Your task to perform on an android device: turn off notifications in google photos Image 0: 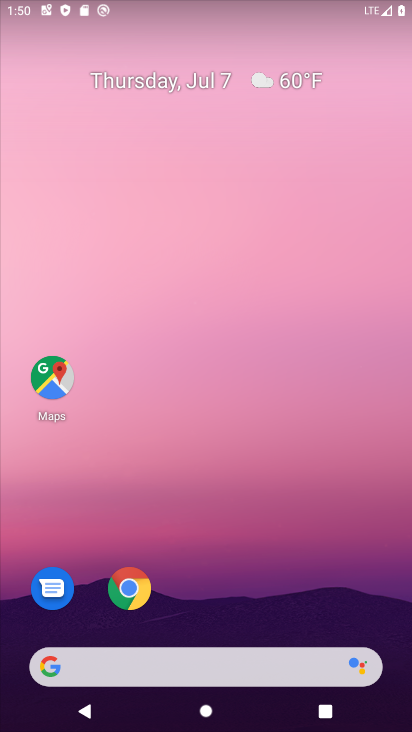
Step 0: drag from (233, 558) to (243, 186)
Your task to perform on an android device: turn off notifications in google photos Image 1: 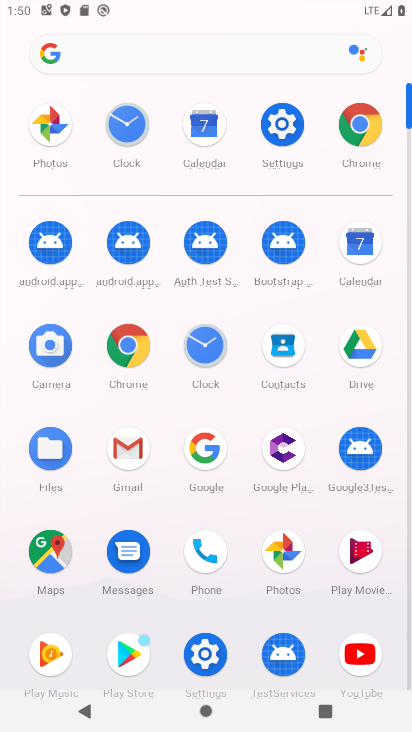
Step 1: click (278, 541)
Your task to perform on an android device: turn off notifications in google photos Image 2: 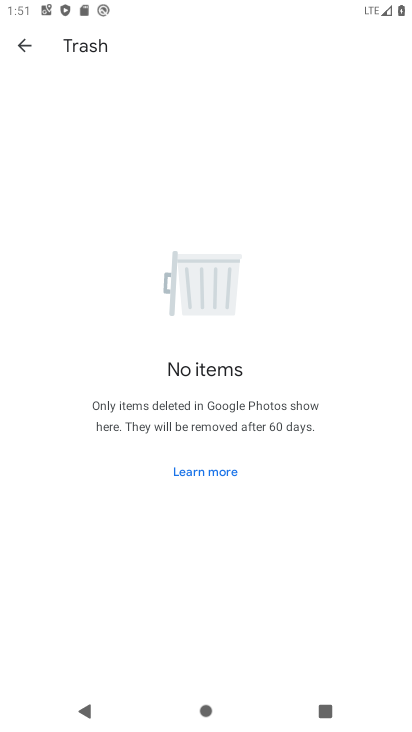
Step 2: click (19, 37)
Your task to perform on an android device: turn off notifications in google photos Image 3: 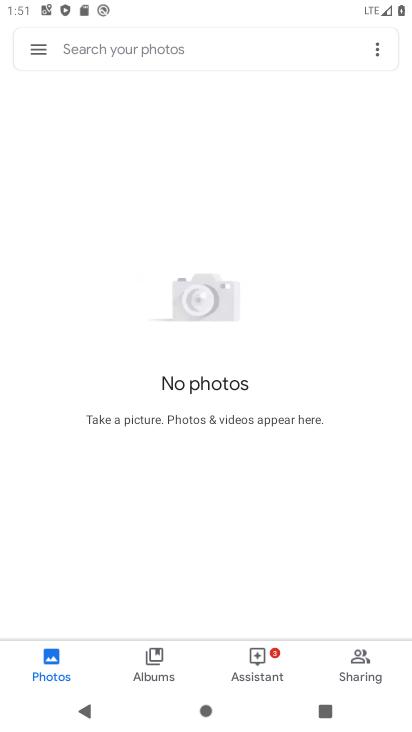
Step 3: click (42, 52)
Your task to perform on an android device: turn off notifications in google photos Image 4: 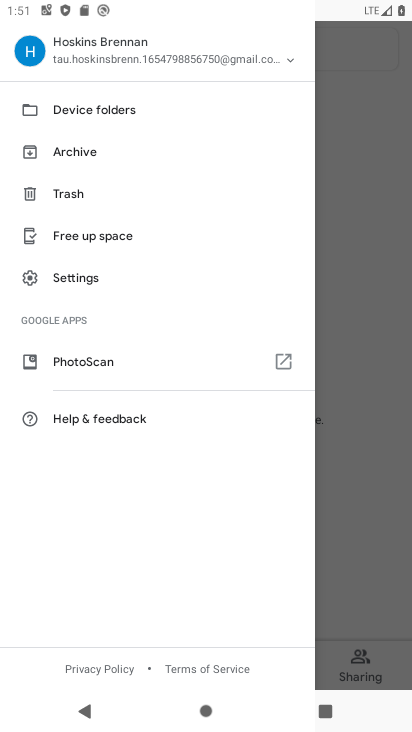
Step 4: click (102, 275)
Your task to perform on an android device: turn off notifications in google photos Image 5: 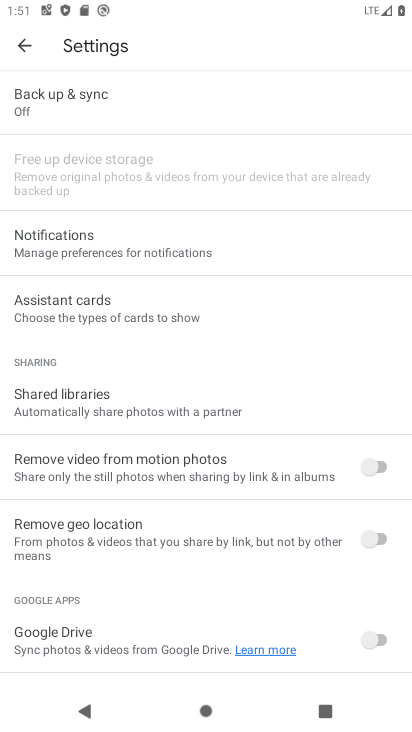
Step 5: drag from (121, 596) to (202, 304)
Your task to perform on an android device: turn off notifications in google photos Image 6: 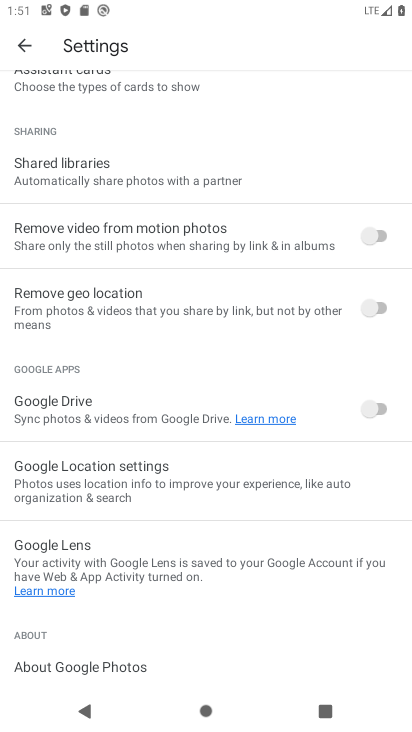
Step 6: drag from (187, 158) to (149, 605)
Your task to perform on an android device: turn off notifications in google photos Image 7: 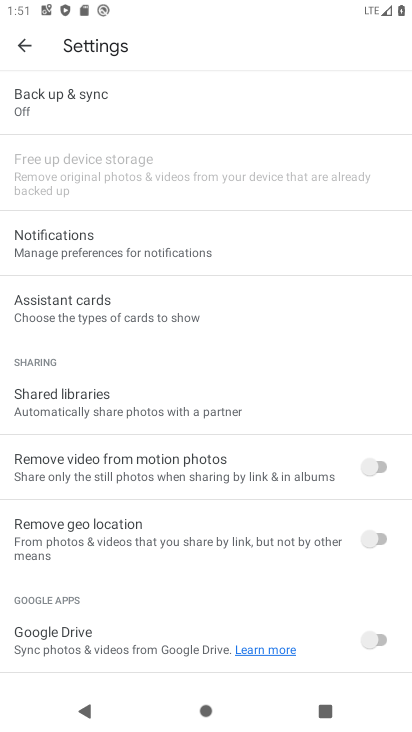
Step 7: drag from (90, 123) to (91, 516)
Your task to perform on an android device: turn off notifications in google photos Image 8: 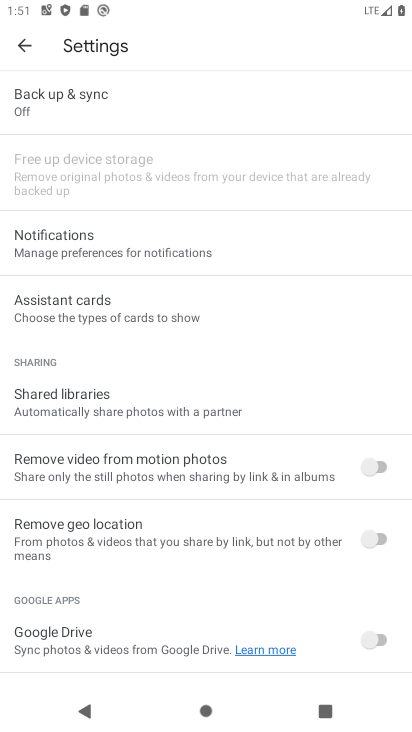
Step 8: click (82, 227)
Your task to perform on an android device: turn off notifications in google photos Image 9: 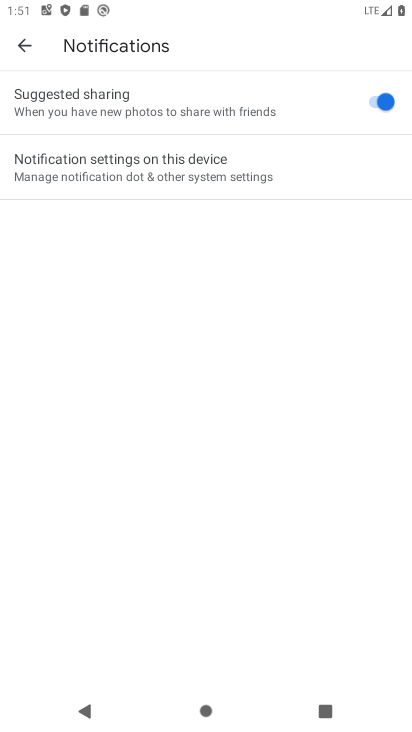
Step 9: click (259, 147)
Your task to perform on an android device: turn off notifications in google photos Image 10: 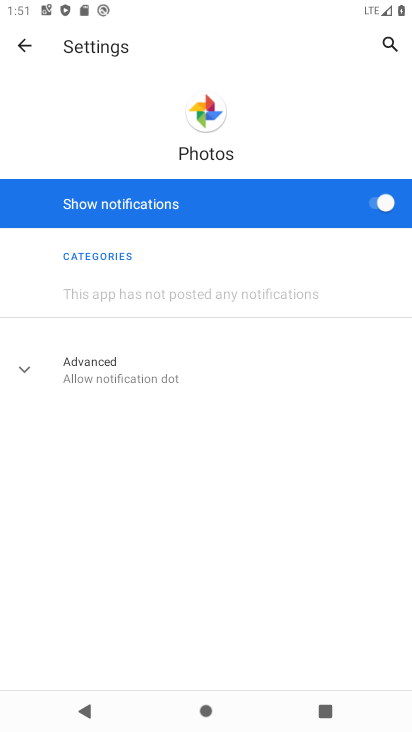
Step 10: click (369, 190)
Your task to perform on an android device: turn off notifications in google photos Image 11: 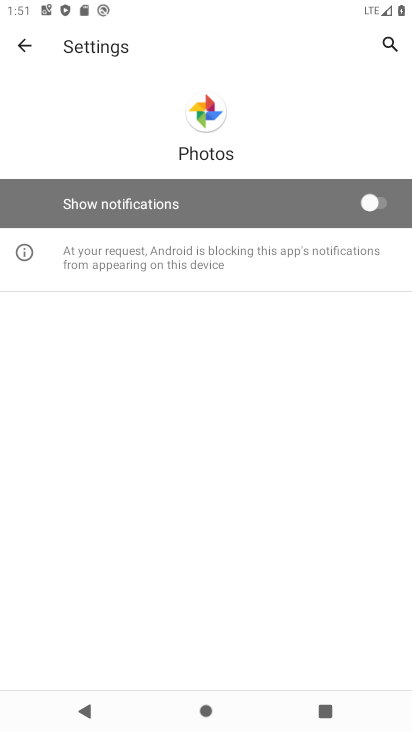
Step 11: task complete